Your task to perform on an android device: all mails in gmail Image 0: 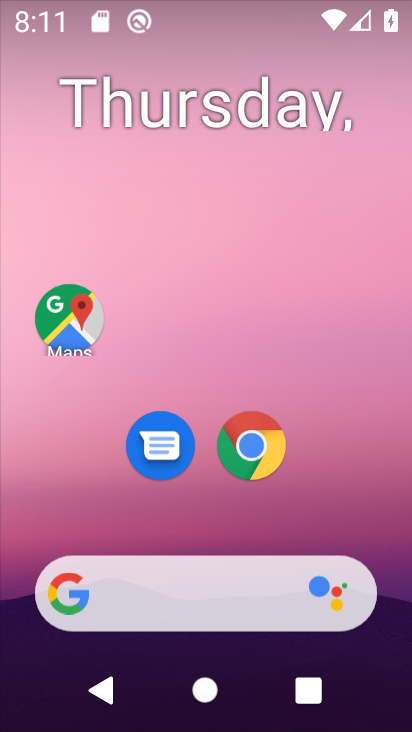
Step 0: drag from (276, 529) to (198, 0)
Your task to perform on an android device: all mails in gmail Image 1: 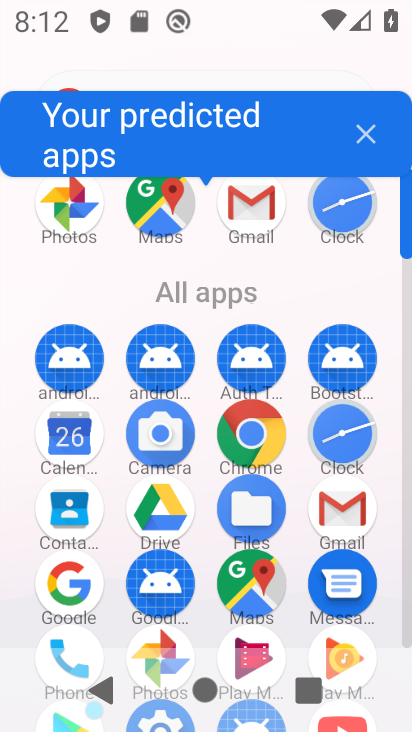
Step 1: click (348, 506)
Your task to perform on an android device: all mails in gmail Image 2: 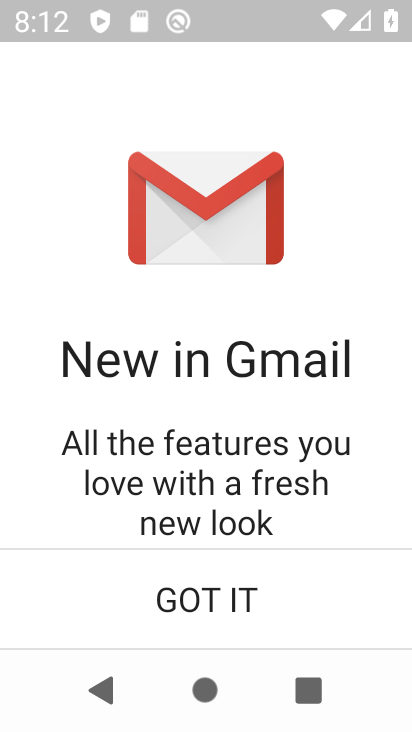
Step 2: click (136, 556)
Your task to perform on an android device: all mails in gmail Image 3: 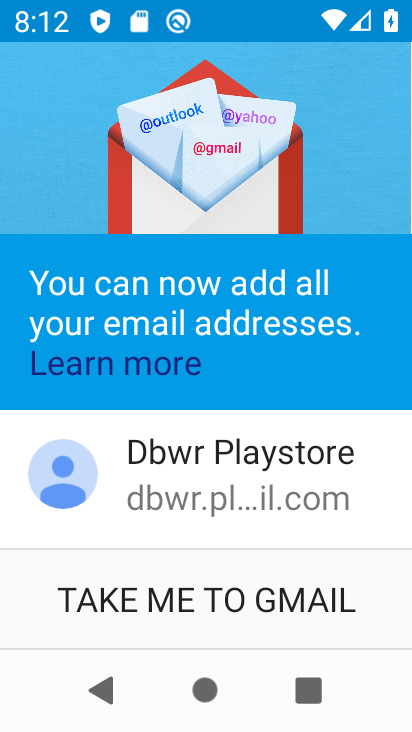
Step 3: click (272, 576)
Your task to perform on an android device: all mails in gmail Image 4: 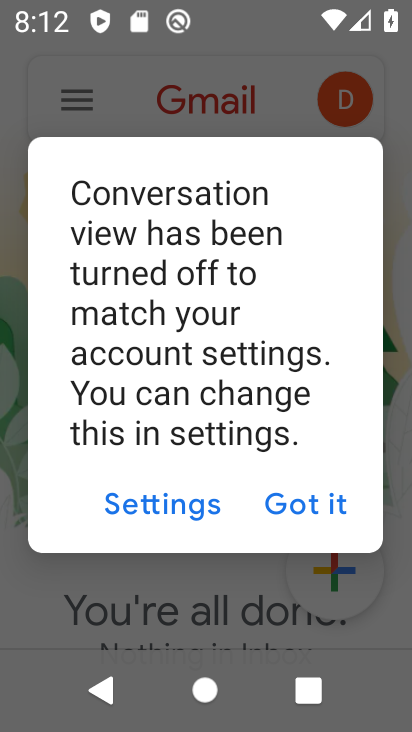
Step 4: click (329, 512)
Your task to perform on an android device: all mails in gmail Image 5: 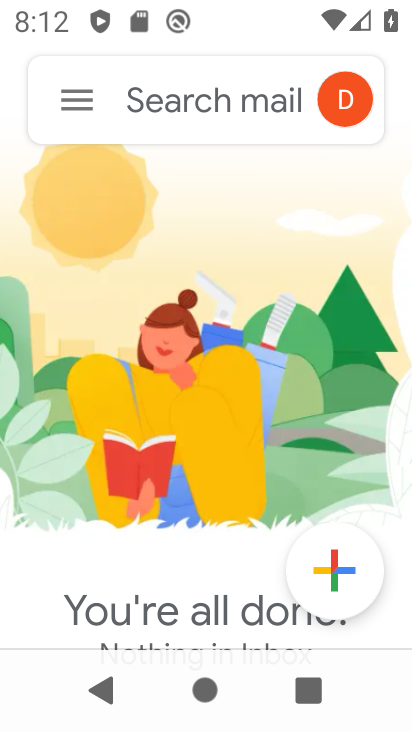
Step 5: click (68, 101)
Your task to perform on an android device: all mails in gmail Image 6: 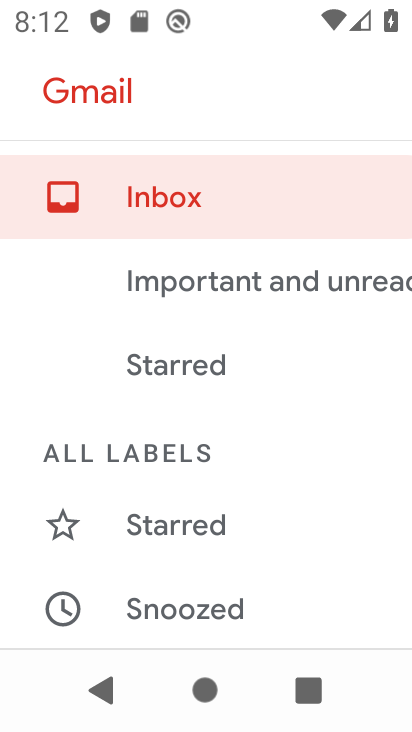
Step 6: drag from (192, 435) to (168, 0)
Your task to perform on an android device: all mails in gmail Image 7: 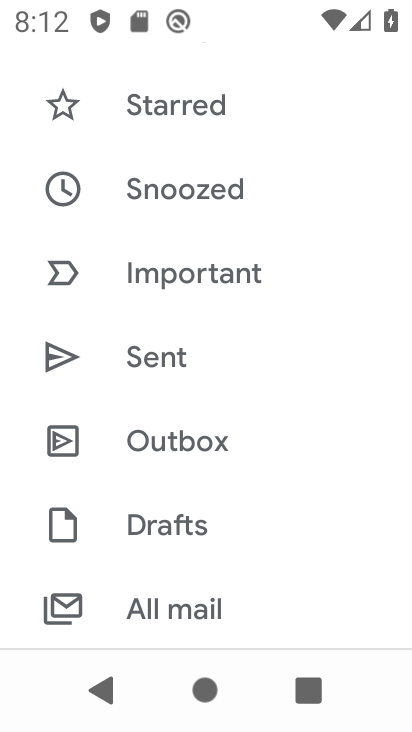
Step 7: click (176, 603)
Your task to perform on an android device: all mails in gmail Image 8: 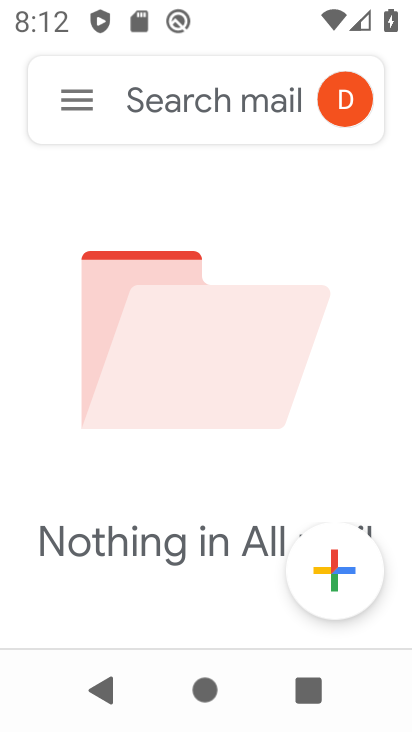
Step 8: task complete